Your task to perform on an android device: Toggle the flashlight Image 0: 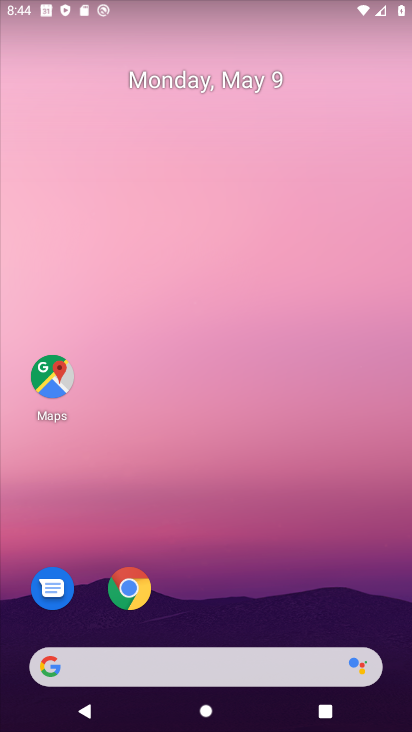
Step 0: task impossible